Your task to perform on an android device: Open CNN.com Image 0: 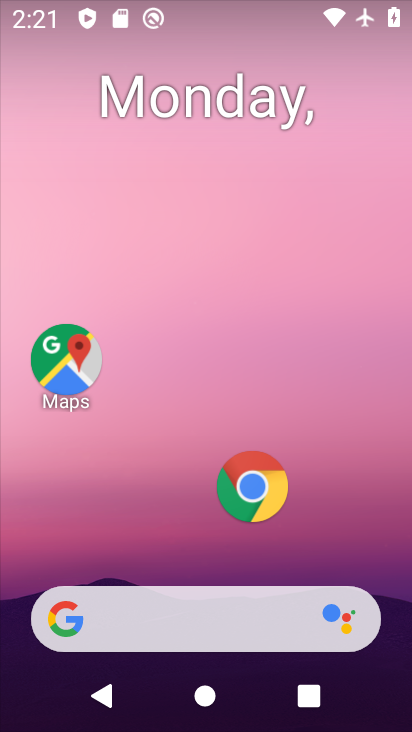
Step 0: click (240, 485)
Your task to perform on an android device: Open CNN.com Image 1: 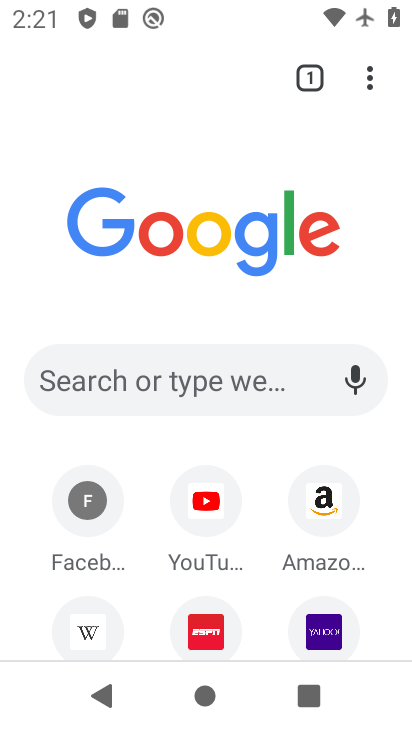
Step 1: click (199, 378)
Your task to perform on an android device: Open CNN.com Image 2: 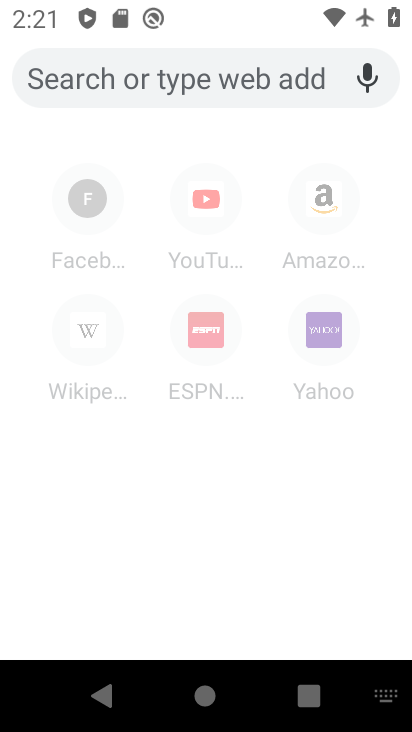
Step 2: type "CNN.com"
Your task to perform on an android device: Open CNN.com Image 3: 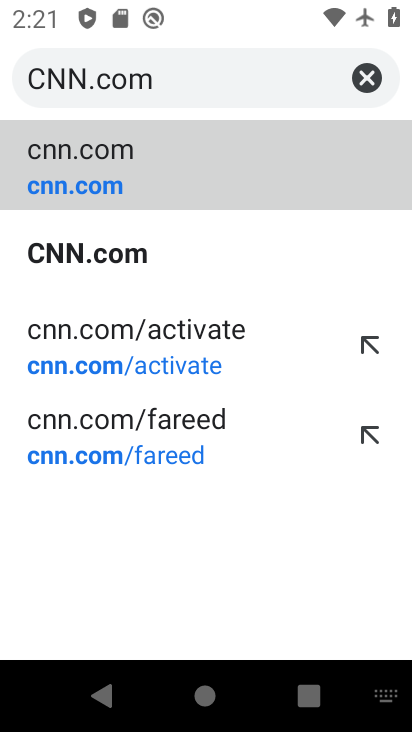
Step 3: click (48, 173)
Your task to perform on an android device: Open CNN.com Image 4: 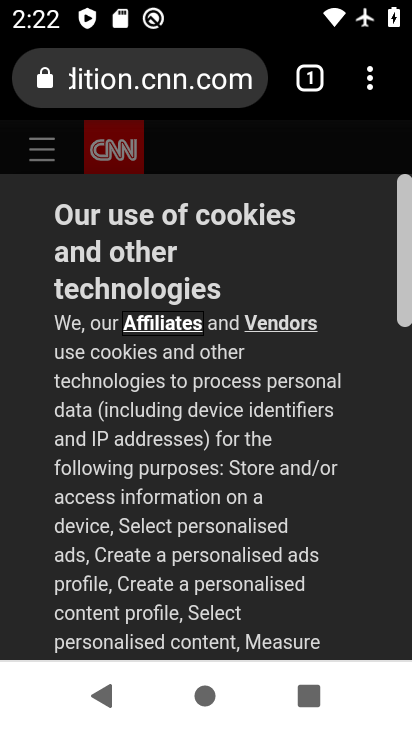
Step 4: task complete